Your task to perform on an android device: Open Google Chrome and click the shortcut for Amazon.com Image 0: 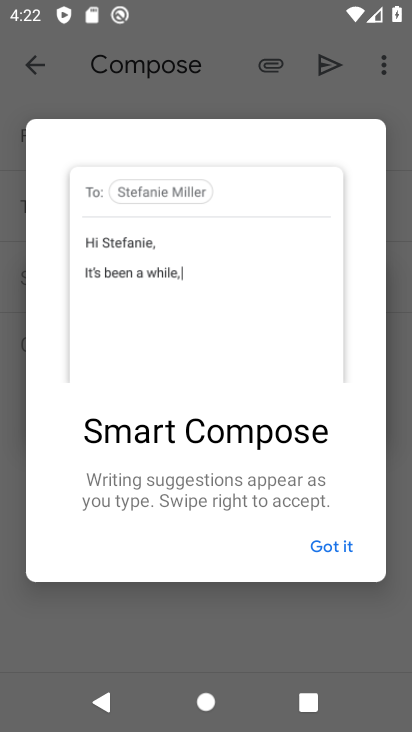
Step 0: press home button
Your task to perform on an android device: Open Google Chrome and click the shortcut for Amazon.com Image 1: 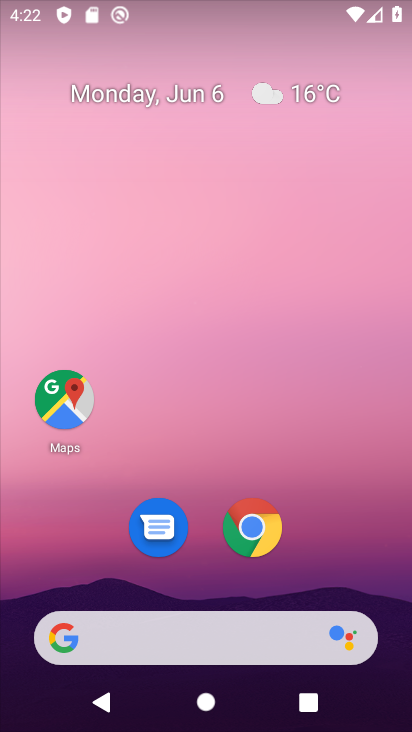
Step 1: drag from (121, 577) to (167, 133)
Your task to perform on an android device: Open Google Chrome and click the shortcut for Amazon.com Image 2: 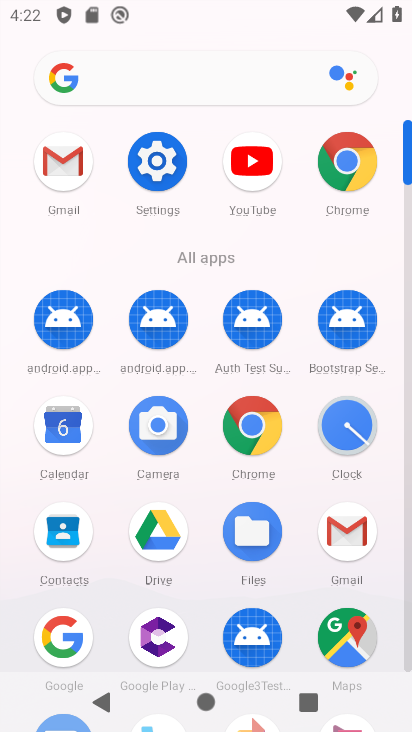
Step 2: click (260, 438)
Your task to perform on an android device: Open Google Chrome and click the shortcut for Amazon.com Image 3: 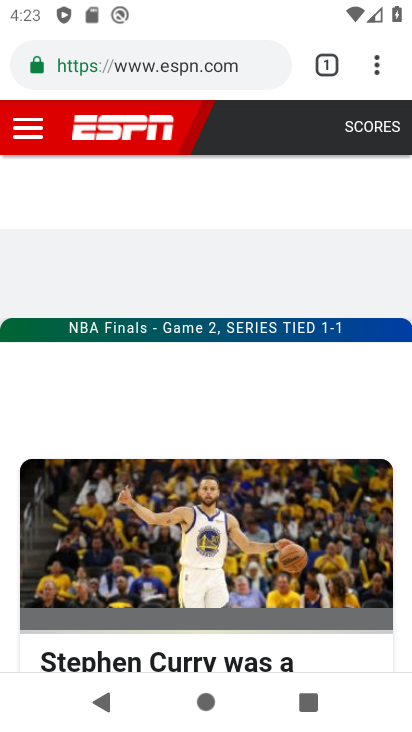
Step 3: click (325, 57)
Your task to perform on an android device: Open Google Chrome and click the shortcut for Amazon.com Image 4: 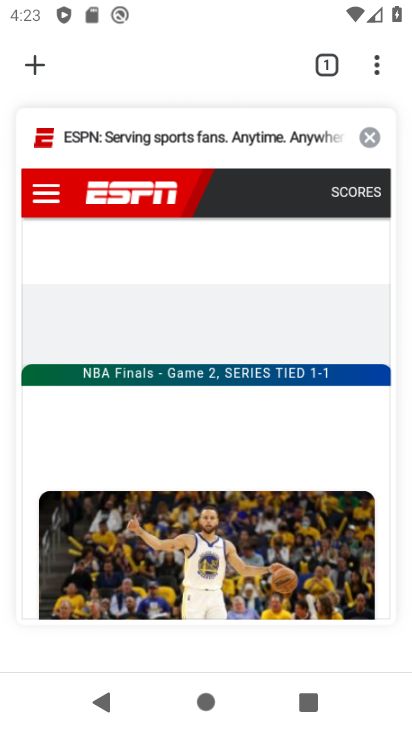
Step 4: click (372, 146)
Your task to perform on an android device: Open Google Chrome and click the shortcut for Amazon.com Image 5: 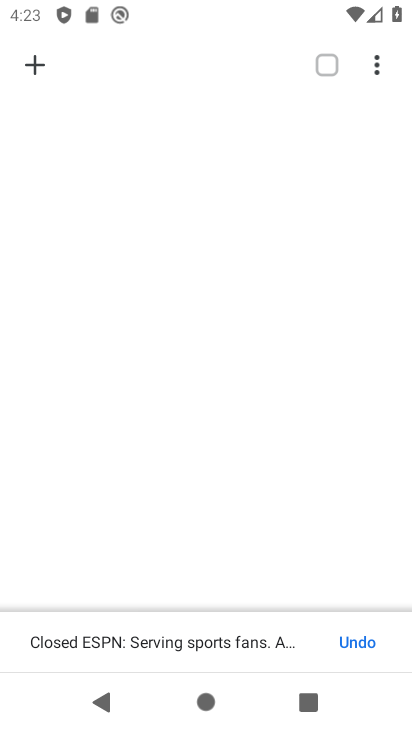
Step 5: click (43, 65)
Your task to perform on an android device: Open Google Chrome and click the shortcut for Amazon.com Image 6: 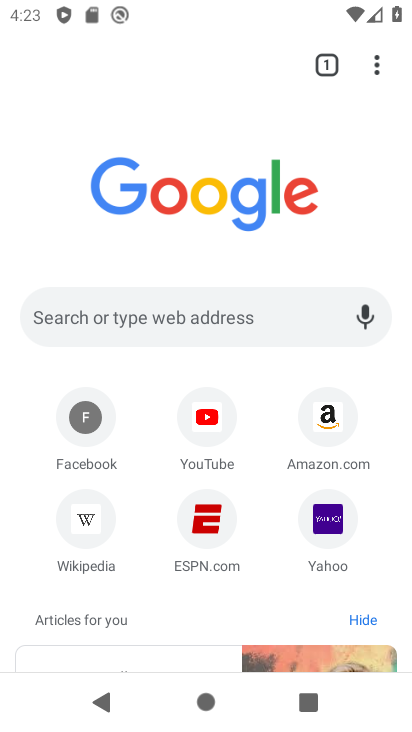
Step 6: click (338, 417)
Your task to perform on an android device: Open Google Chrome and click the shortcut for Amazon.com Image 7: 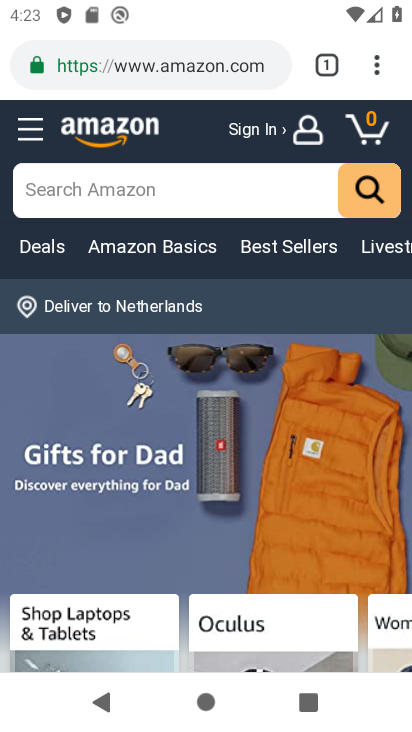
Step 7: task complete